Your task to perform on an android device: read, delete, or share a saved page in the chrome app Image 0: 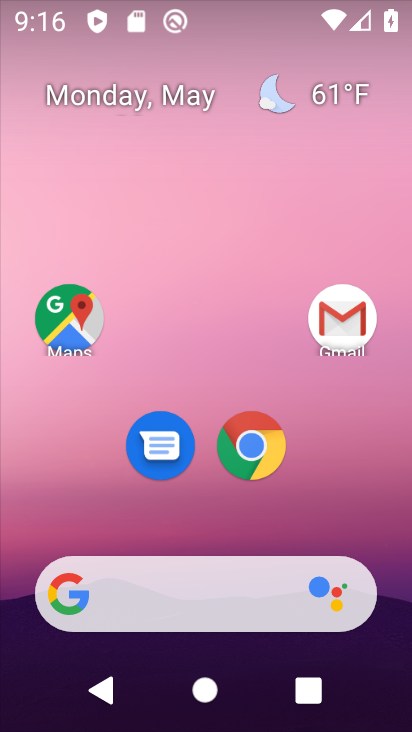
Step 0: drag from (394, 543) to (389, 214)
Your task to perform on an android device: read, delete, or share a saved page in the chrome app Image 1: 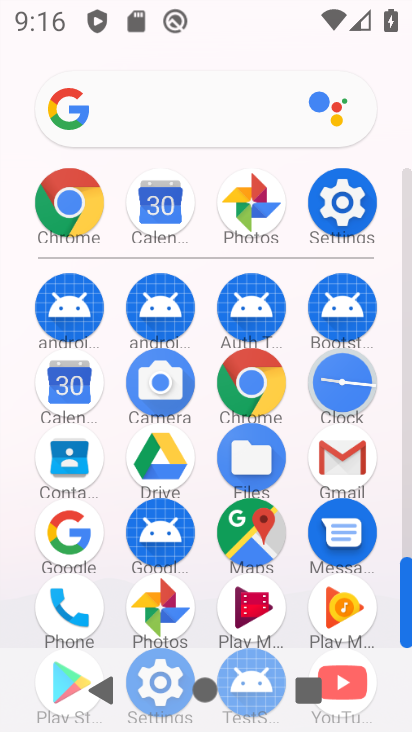
Step 1: click (248, 395)
Your task to perform on an android device: read, delete, or share a saved page in the chrome app Image 2: 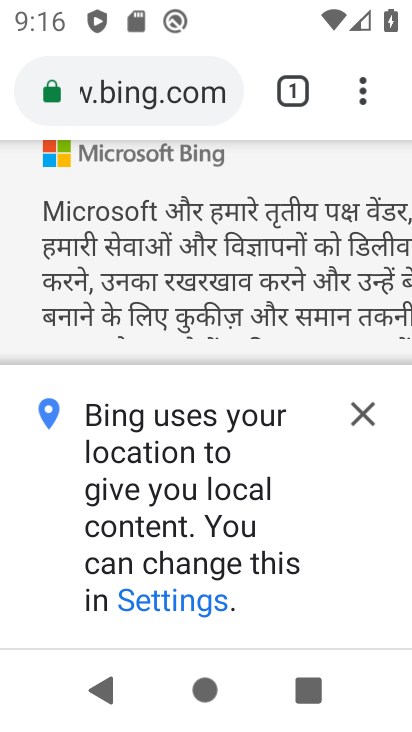
Step 2: click (364, 109)
Your task to perform on an android device: read, delete, or share a saved page in the chrome app Image 3: 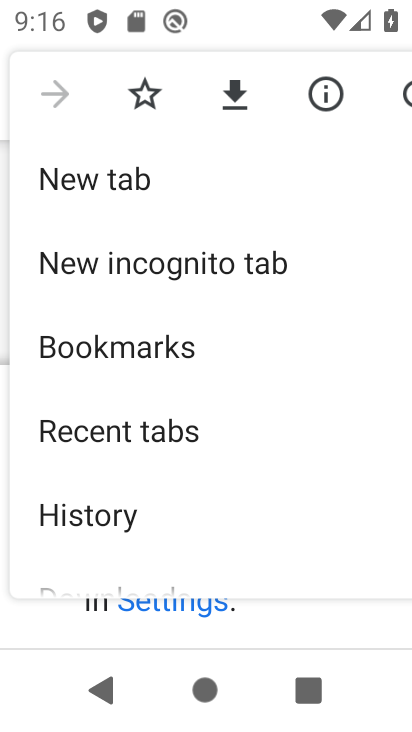
Step 3: drag from (296, 435) to (314, 334)
Your task to perform on an android device: read, delete, or share a saved page in the chrome app Image 4: 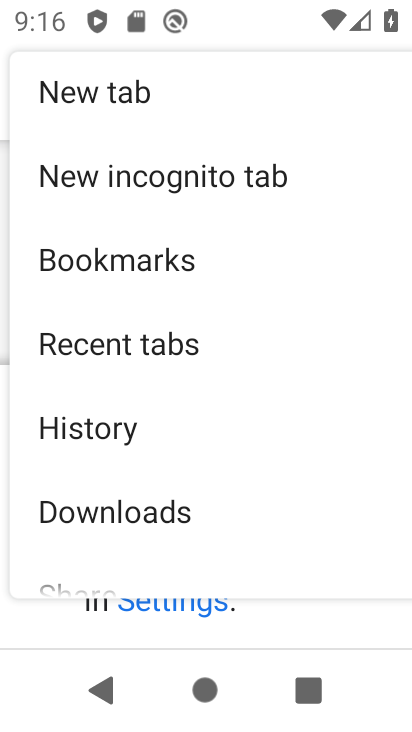
Step 4: drag from (295, 491) to (311, 347)
Your task to perform on an android device: read, delete, or share a saved page in the chrome app Image 5: 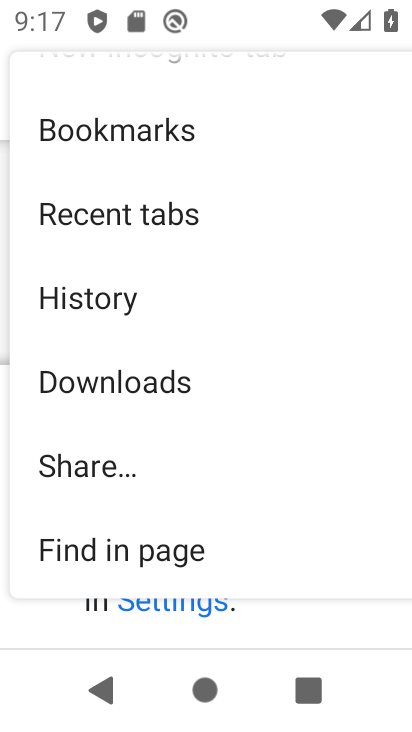
Step 5: click (218, 416)
Your task to perform on an android device: read, delete, or share a saved page in the chrome app Image 6: 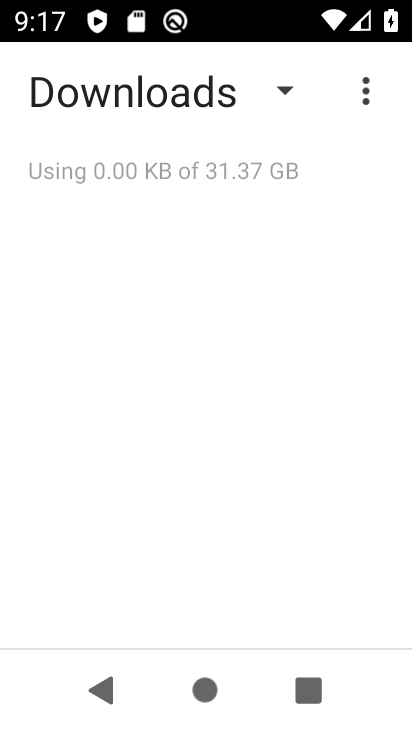
Step 6: click (292, 95)
Your task to perform on an android device: read, delete, or share a saved page in the chrome app Image 7: 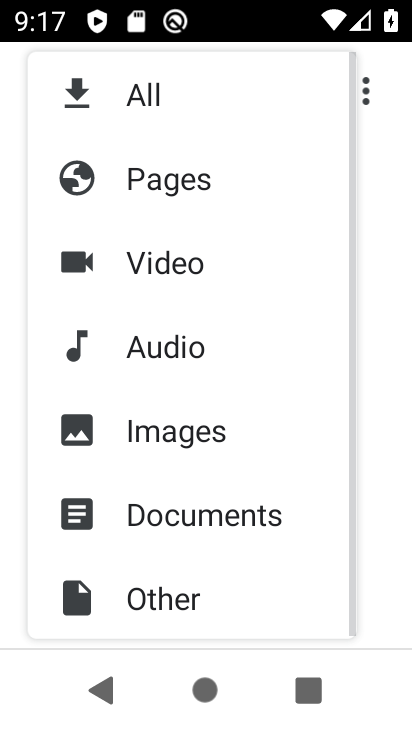
Step 7: click (233, 180)
Your task to perform on an android device: read, delete, or share a saved page in the chrome app Image 8: 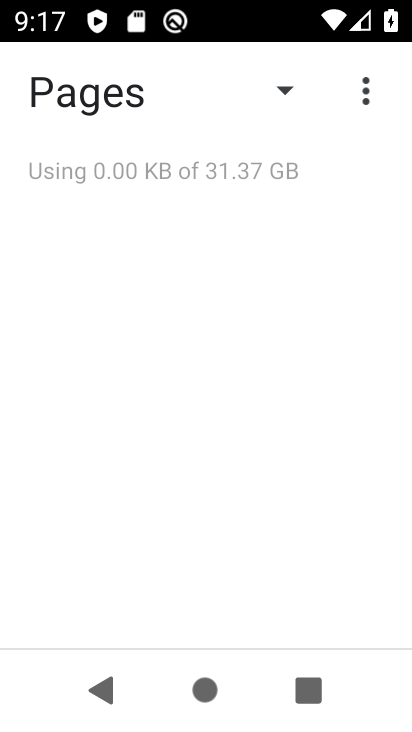
Step 8: task complete